Your task to perform on an android device: Check the news Image 0: 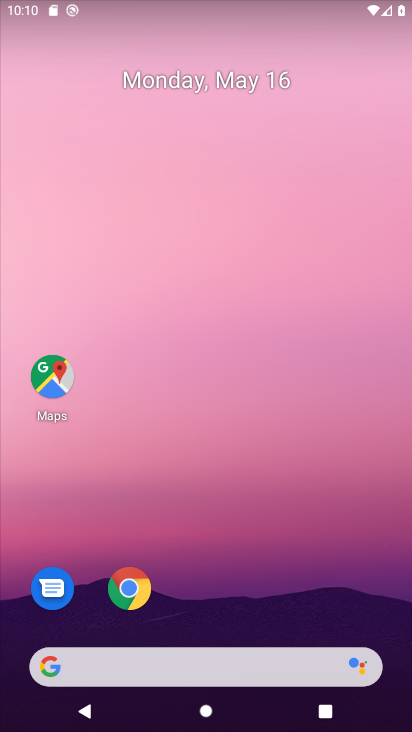
Step 0: drag from (51, 282) to (394, 283)
Your task to perform on an android device: Check the news Image 1: 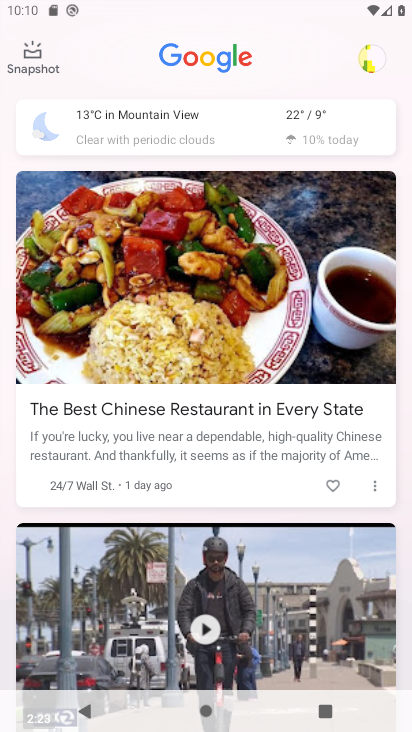
Step 1: task complete